Your task to perform on an android device: delete a single message in the gmail app Image 0: 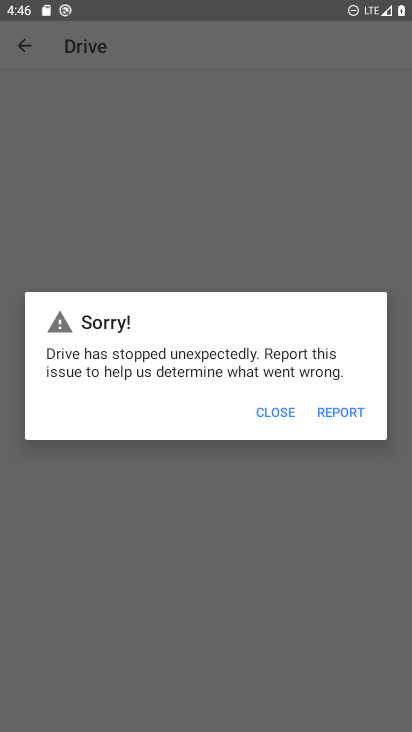
Step 0: press home button
Your task to perform on an android device: delete a single message in the gmail app Image 1: 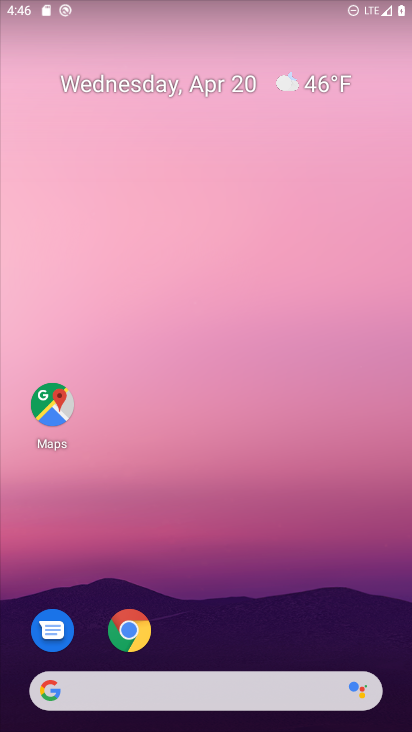
Step 1: drag from (291, 594) to (296, 50)
Your task to perform on an android device: delete a single message in the gmail app Image 2: 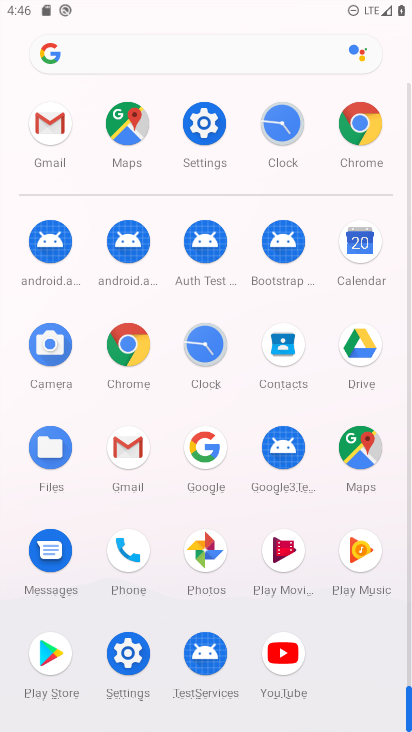
Step 2: click (124, 458)
Your task to perform on an android device: delete a single message in the gmail app Image 3: 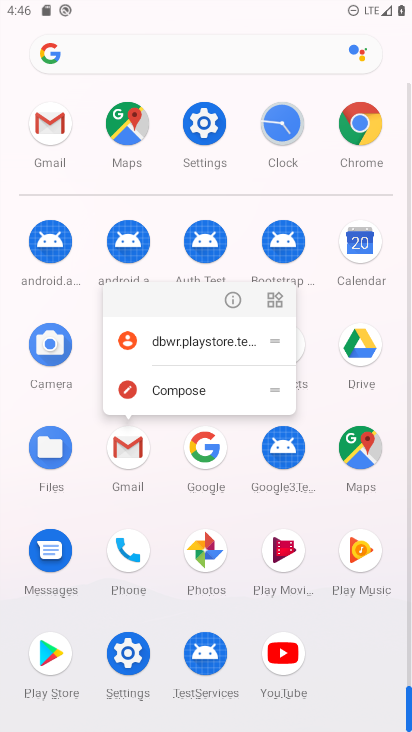
Step 3: click (124, 458)
Your task to perform on an android device: delete a single message in the gmail app Image 4: 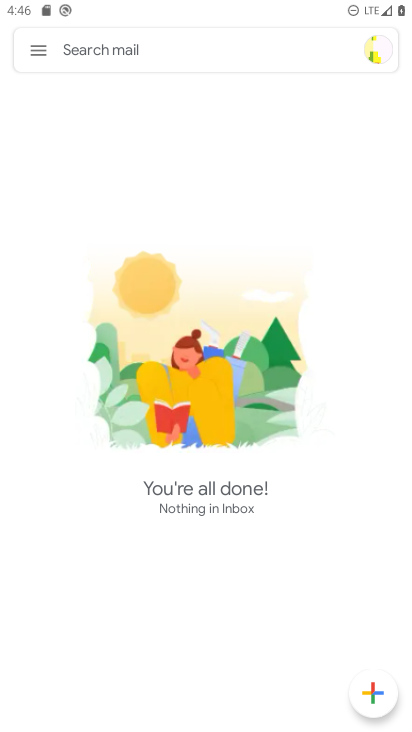
Step 4: click (35, 51)
Your task to perform on an android device: delete a single message in the gmail app Image 5: 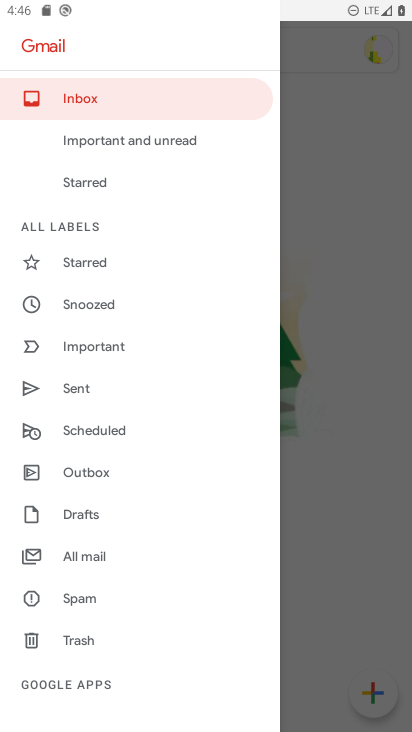
Step 5: task complete